Your task to perform on an android device: Open calendar and show me the third week of next month Image 0: 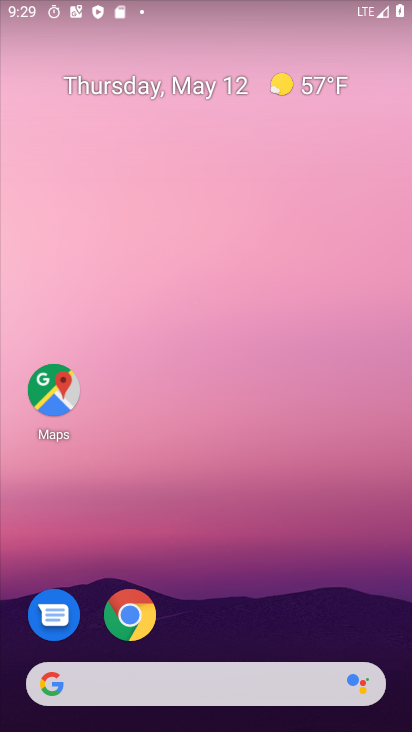
Step 0: drag from (232, 582) to (221, 6)
Your task to perform on an android device: Open calendar and show me the third week of next month Image 1: 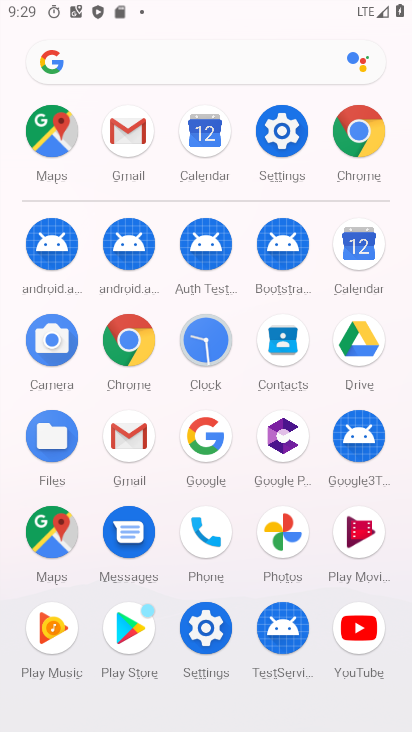
Step 1: drag from (13, 588) to (8, 219)
Your task to perform on an android device: Open calendar and show me the third week of next month Image 2: 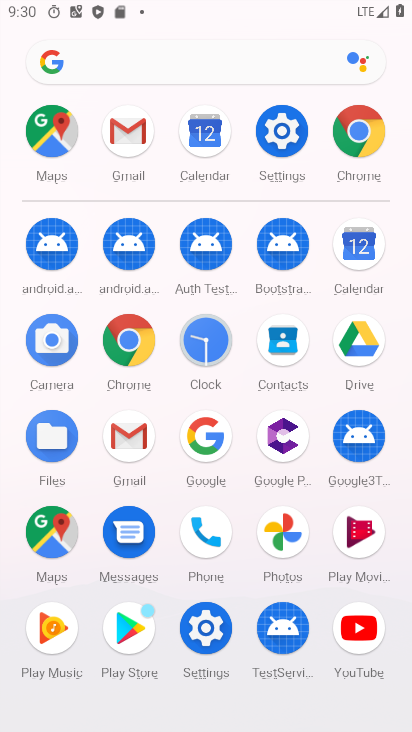
Step 2: click (361, 236)
Your task to perform on an android device: Open calendar and show me the third week of next month Image 3: 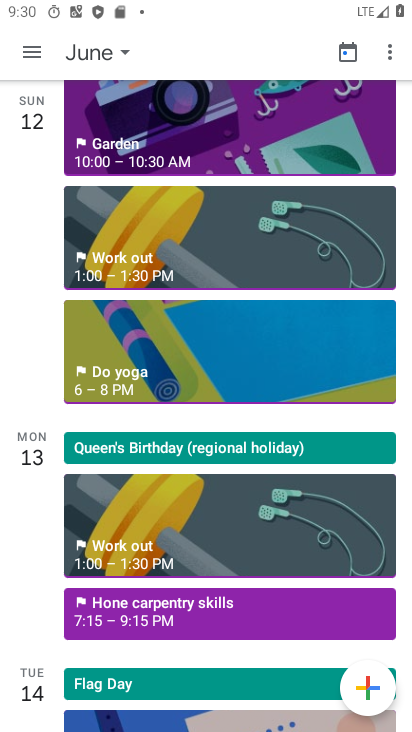
Step 3: click (82, 53)
Your task to perform on an android device: Open calendar and show me the third week of next month Image 4: 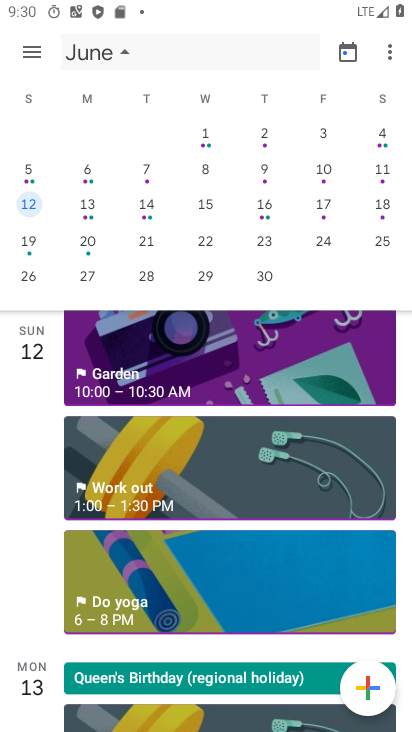
Step 4: click (85, 51)
Your task to perform on an android device: Open calendar and show me the third week of next month Image 5: 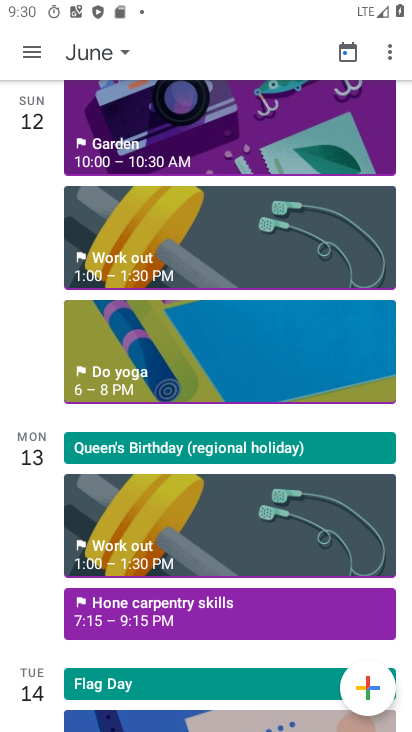
Step 5: click (96, 57)
Your task to perform on an android device: Open calendar and show me the third week of next month Image 6: 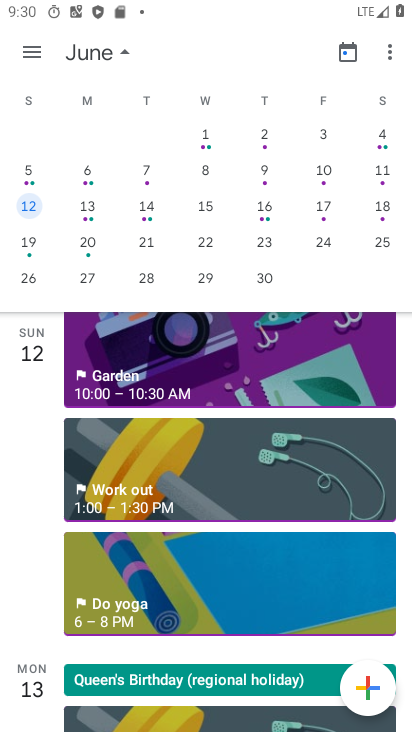
Step 6: drag from (381, 205) to (20, 180)
Your task to perform on an android device: Open calendar and show me the third week of next month Image 7: 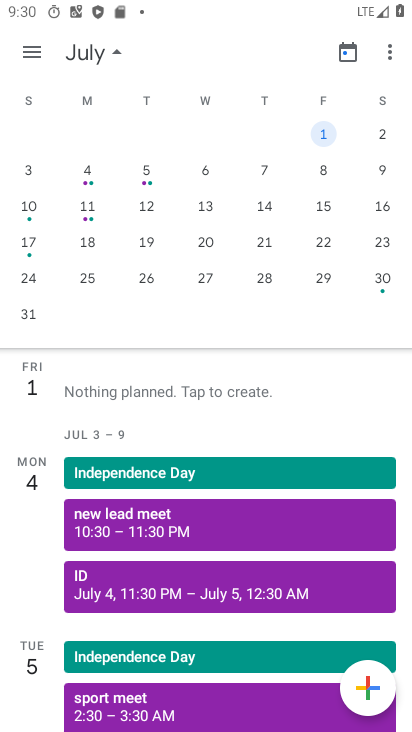
Step 7: click (24, 206)
Your task to perform on an android device: Open calendar and show me the third week of next month Image 8: 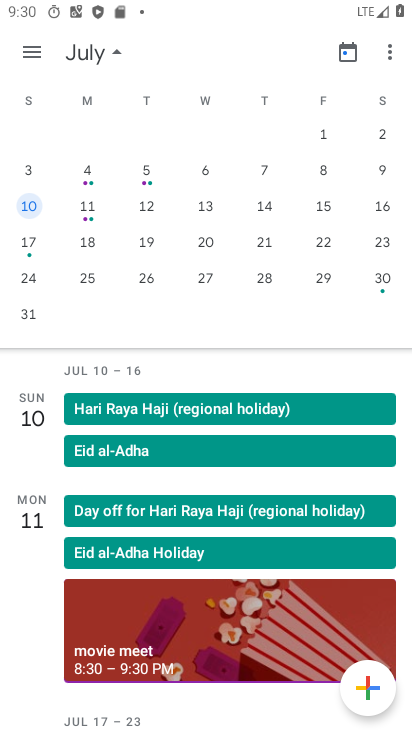
Step 8: click (37, 50)
Your task to perform on an android device: Open calendar and show me the third week of next month Image 9: 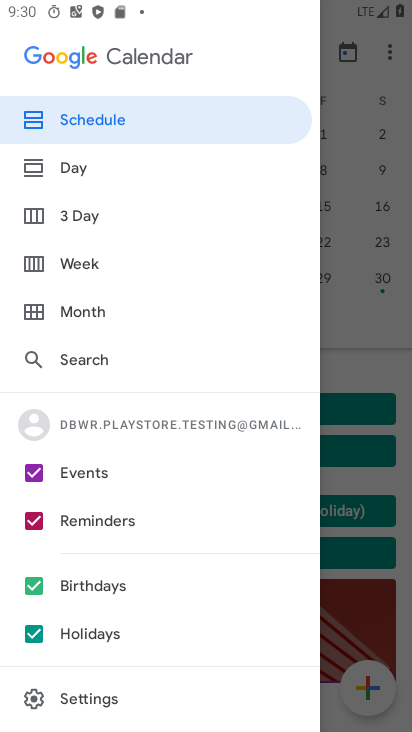
Step 9: click (105, 256)
Your task to perform on an android device: Open calendar and show me the third week of next month Image 10: 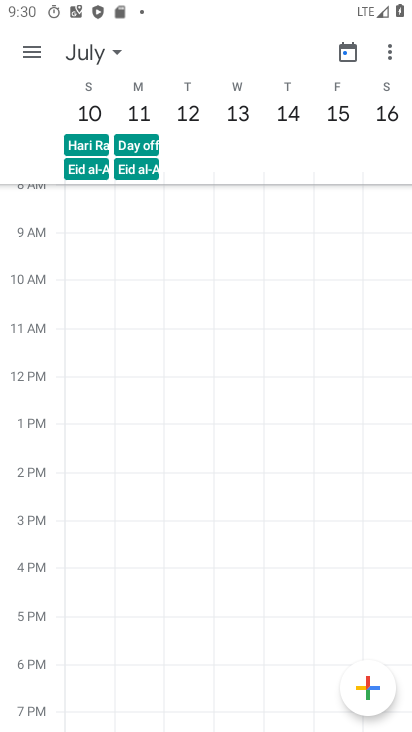
Step 10: task complete